Your task to perform on an android device: Open Android settings Image 0: 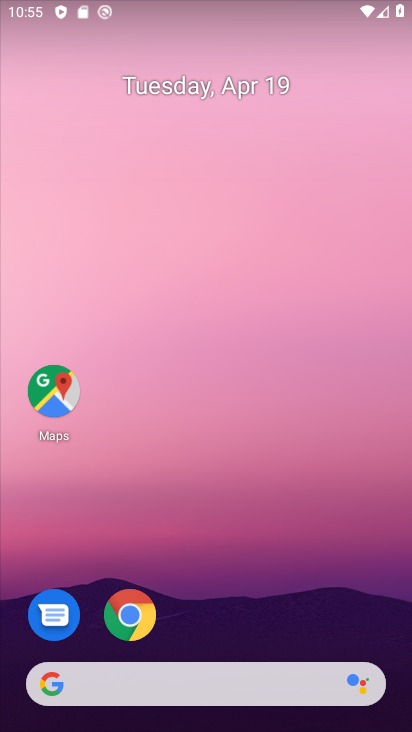
Step 0: drag from (212, 621) to (216, 83)
Your task to perform on an android device: Open Android settings Image 1: 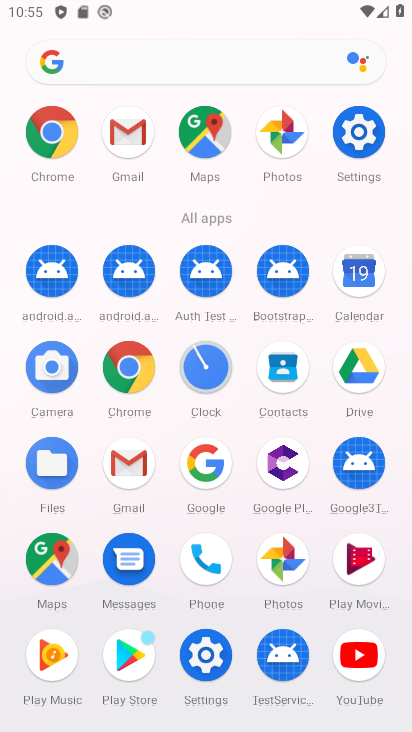
Step 1: click (346, 123)
Your task to perform on an android device: Open Android settings Image 2: 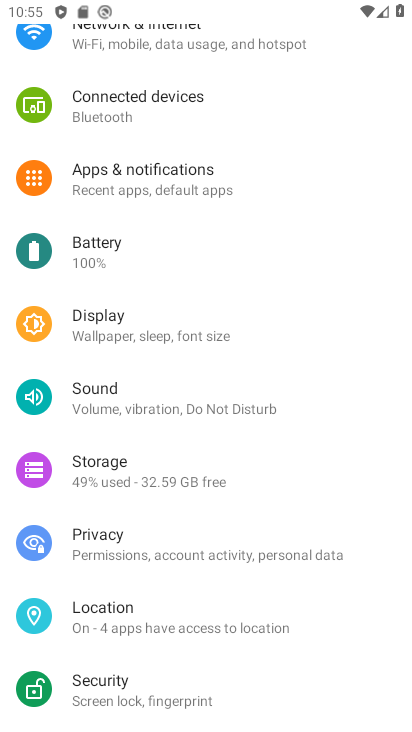
Step 2: drag from (224, 669) to (226, 200)
Your task to perform on an android device: Open Android settings Image 3: 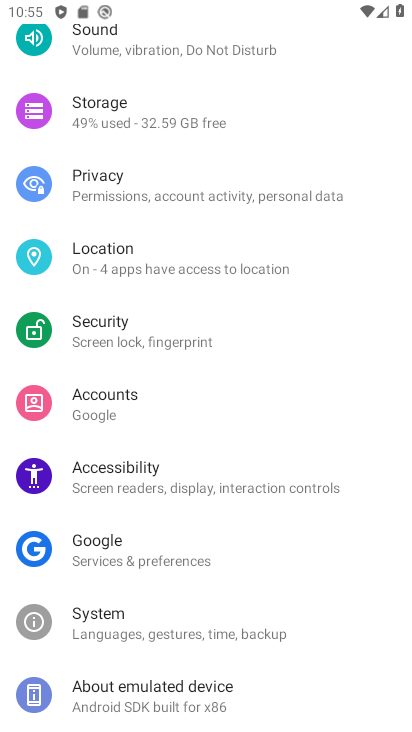
Step 3: drag from (225, 558) to (250, 133)
Your task to perform on an android device: Open Android settings Image 4: 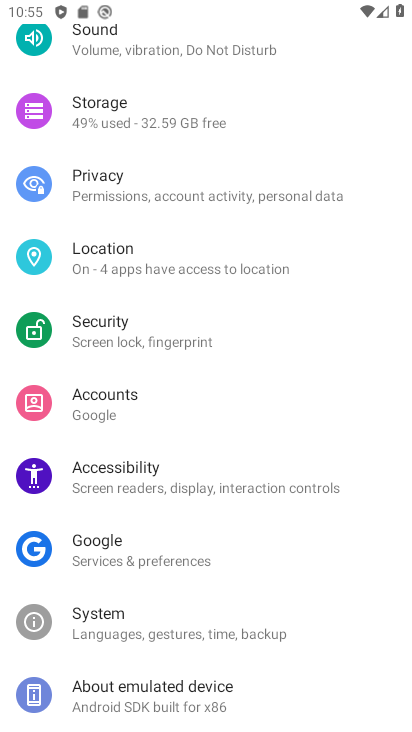
Step 4: click (182, 688)
Your task to perform on an android device: Open Android settings Image 5: 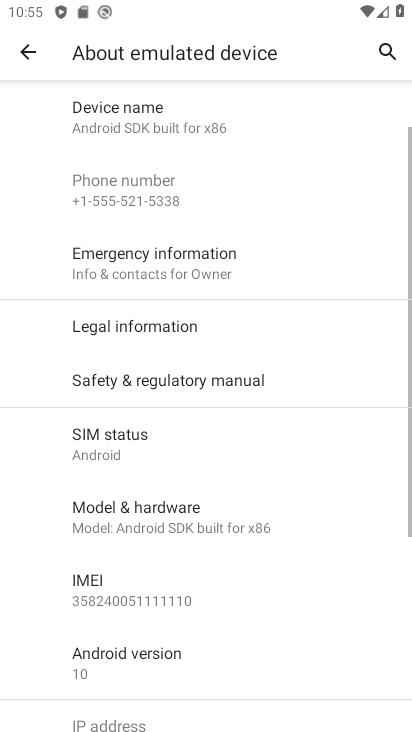
Step 5: task complete